Your task to perform on an android device: turn off location Image 0: 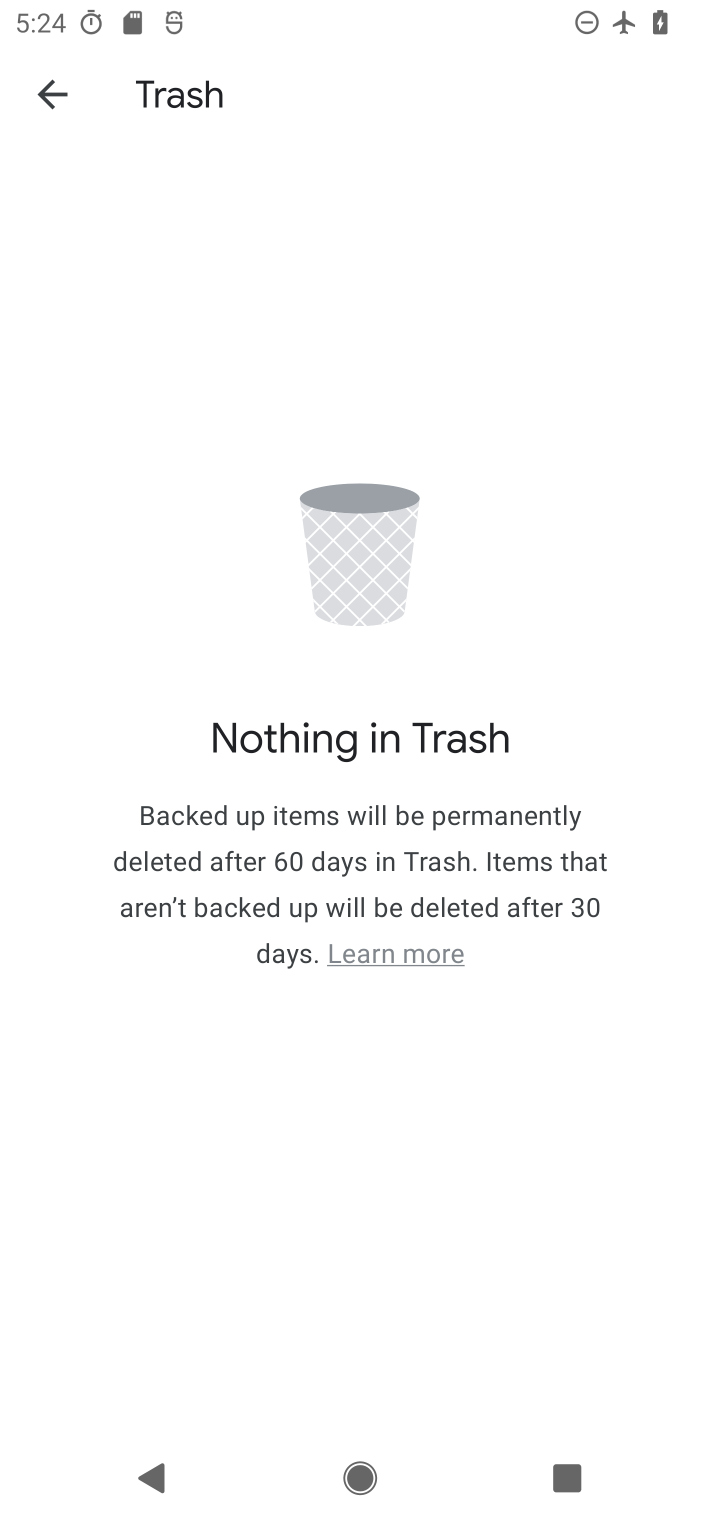
Step 0: press home button
Your task to perform on an android device: turn off location Image 1: 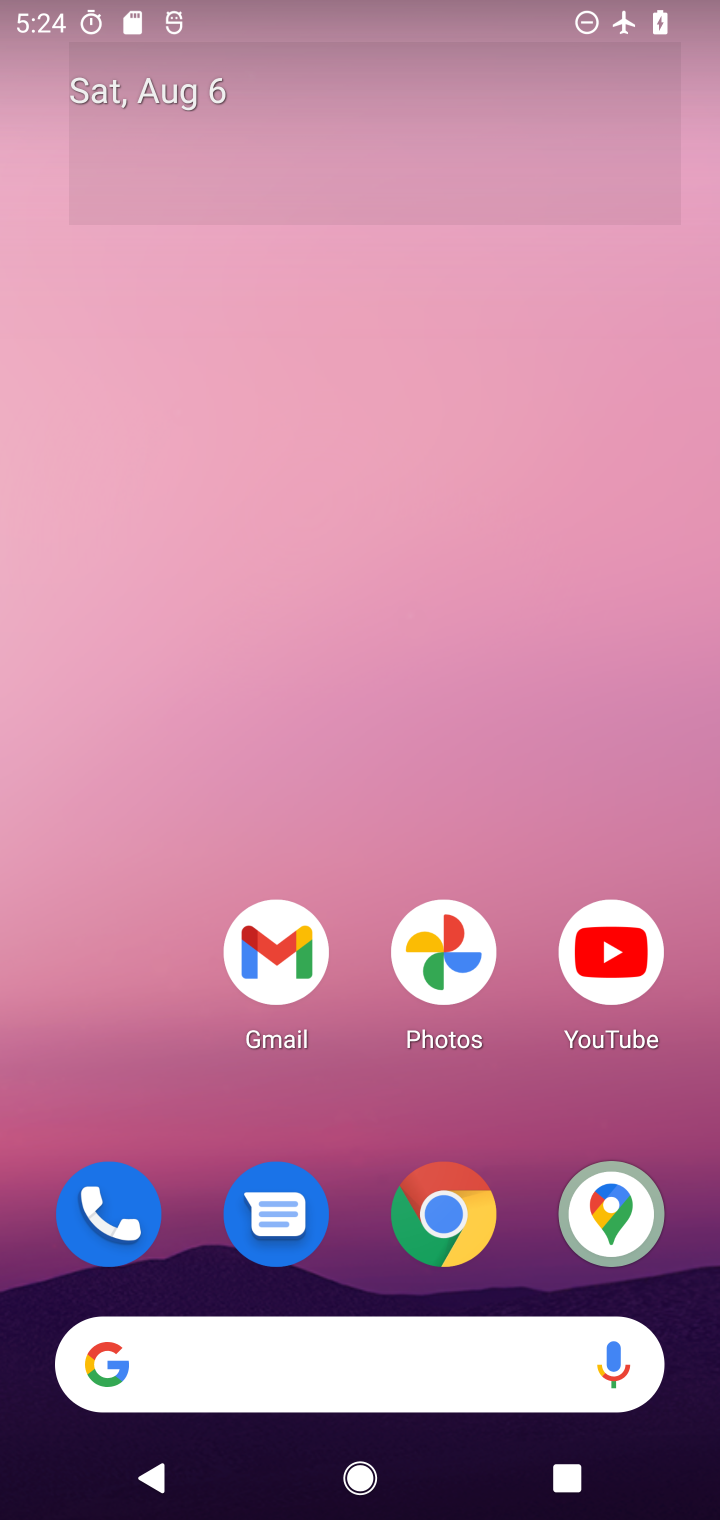
Step 1: drag from (352, 1052) to (400, 141)
Your task to perform on an android device: turn off location Image 2: 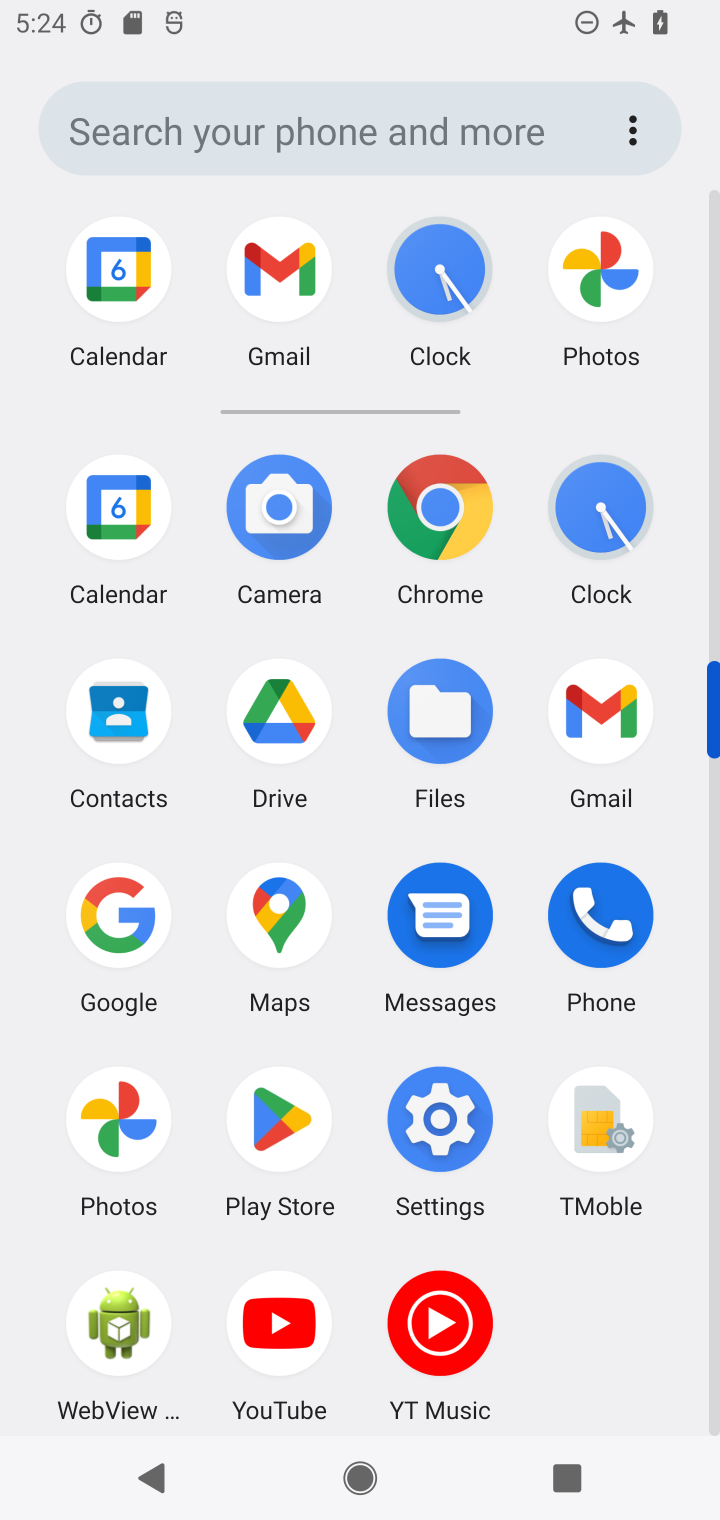
Step 2: click (435, 1121)
Your task to perform on an android device: turn off location Image 3: 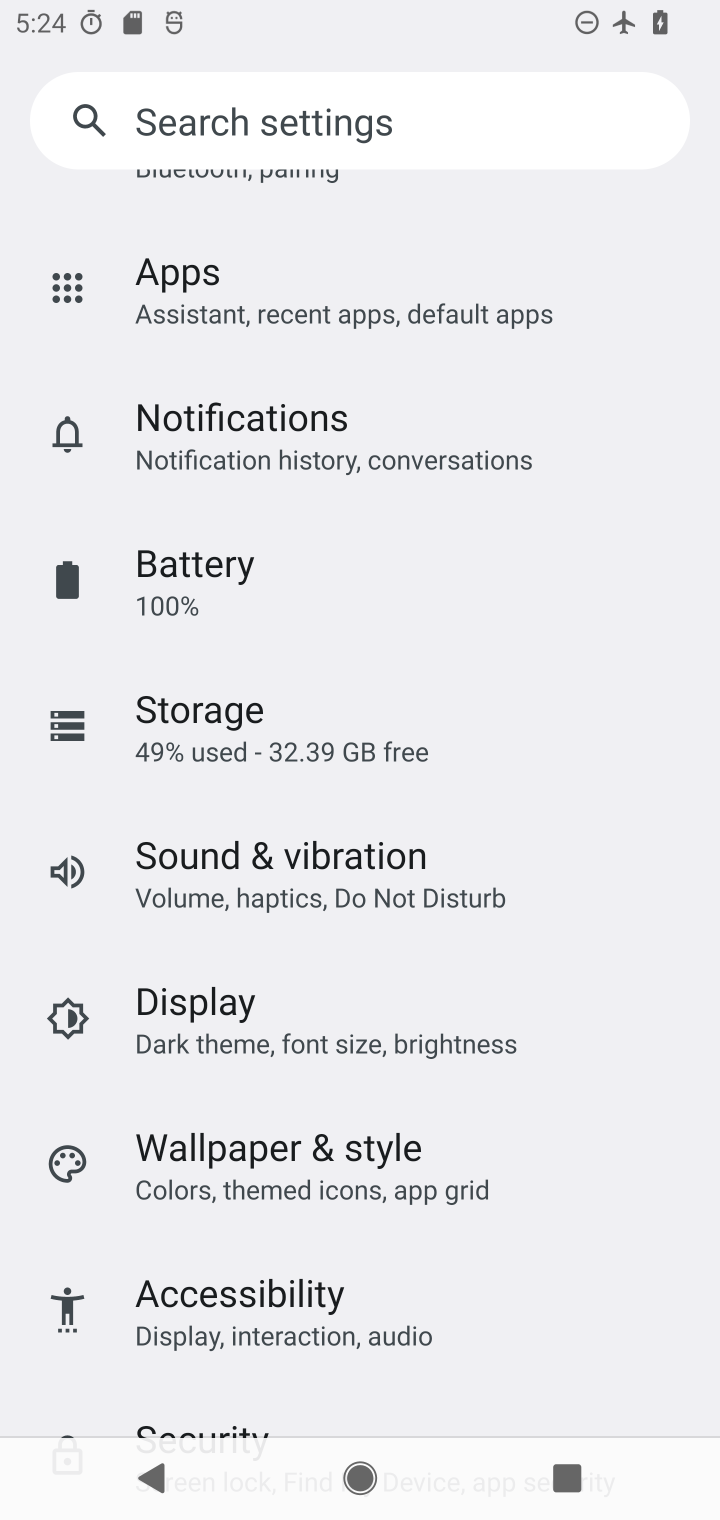
Step 3: drag from (255, 1162) to (305, 310)
Your task to perform on an android device: turn off location Image 4: 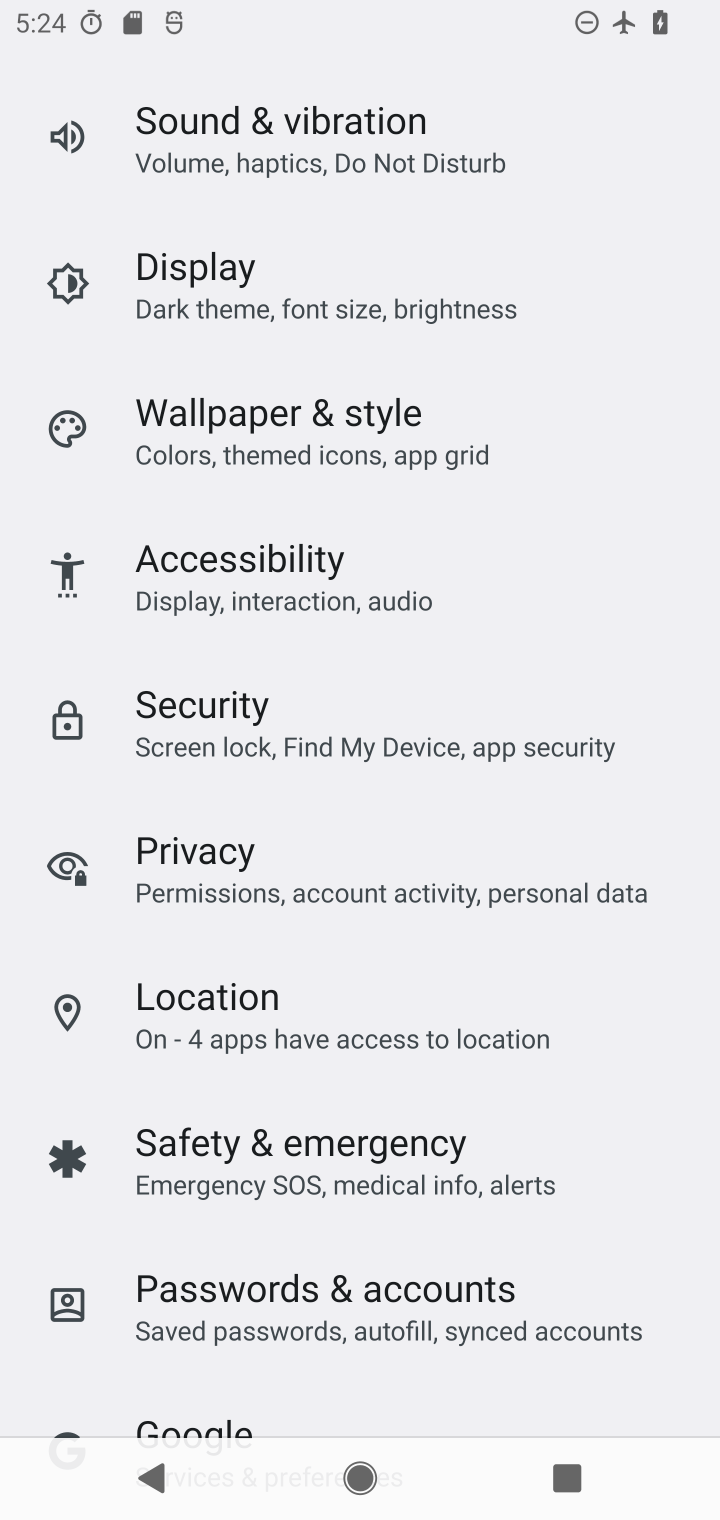
Step 4: click (217, 1206)
Your task to perform on an android device: turn off location Image 5: 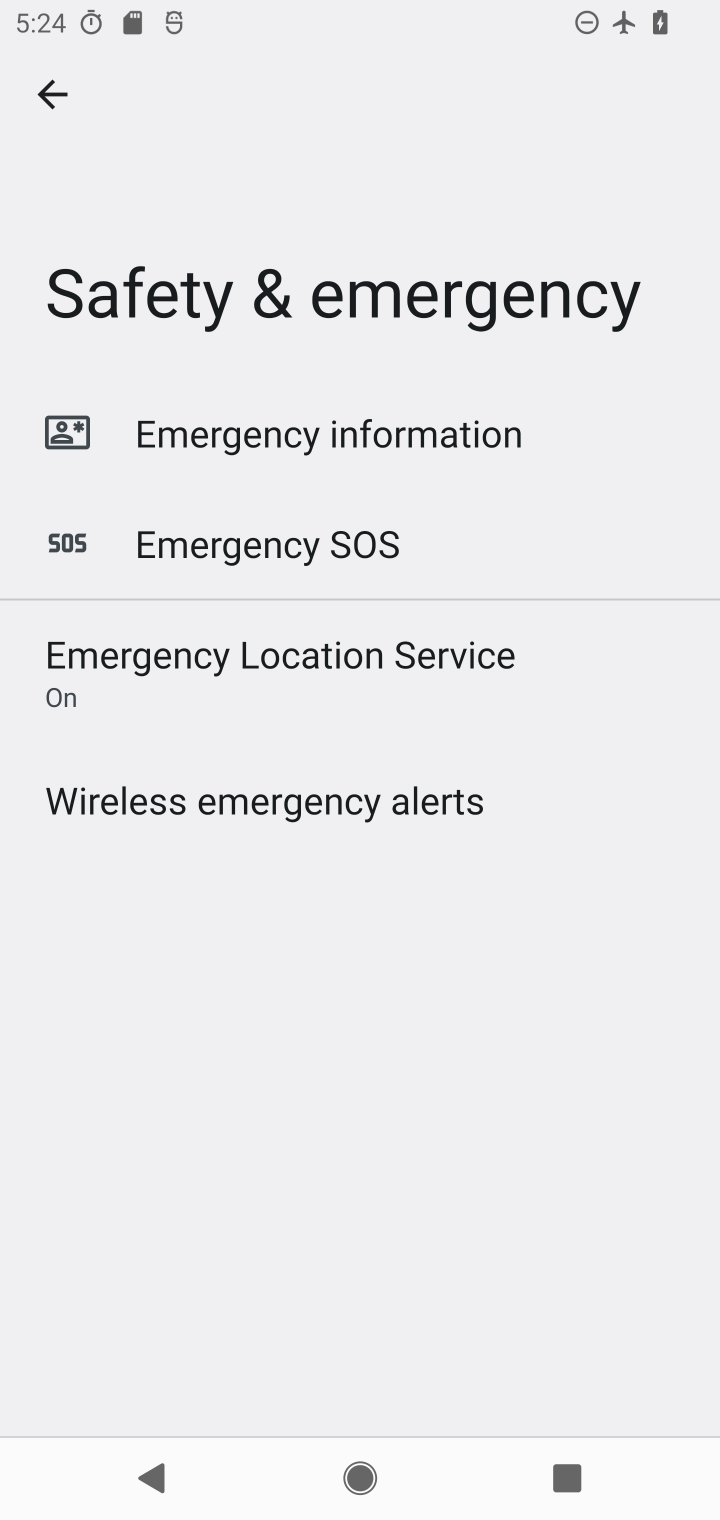
Step 5: click (49, 100)
Your task to perform on an android device: turn off location Image 6: 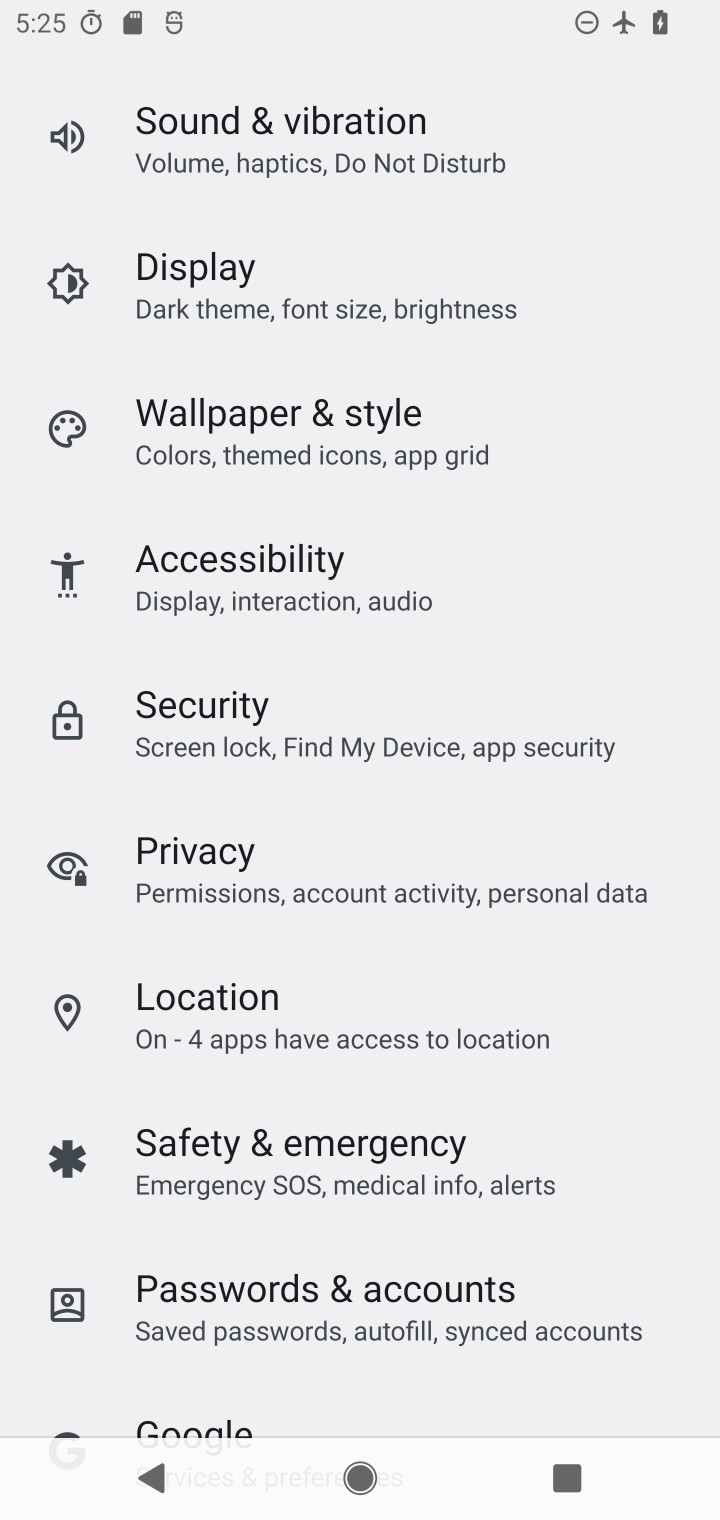
Step 6: drag from (282, 1249) to (302, 556)
Your task to perform on an android device: turn off location Image 7: 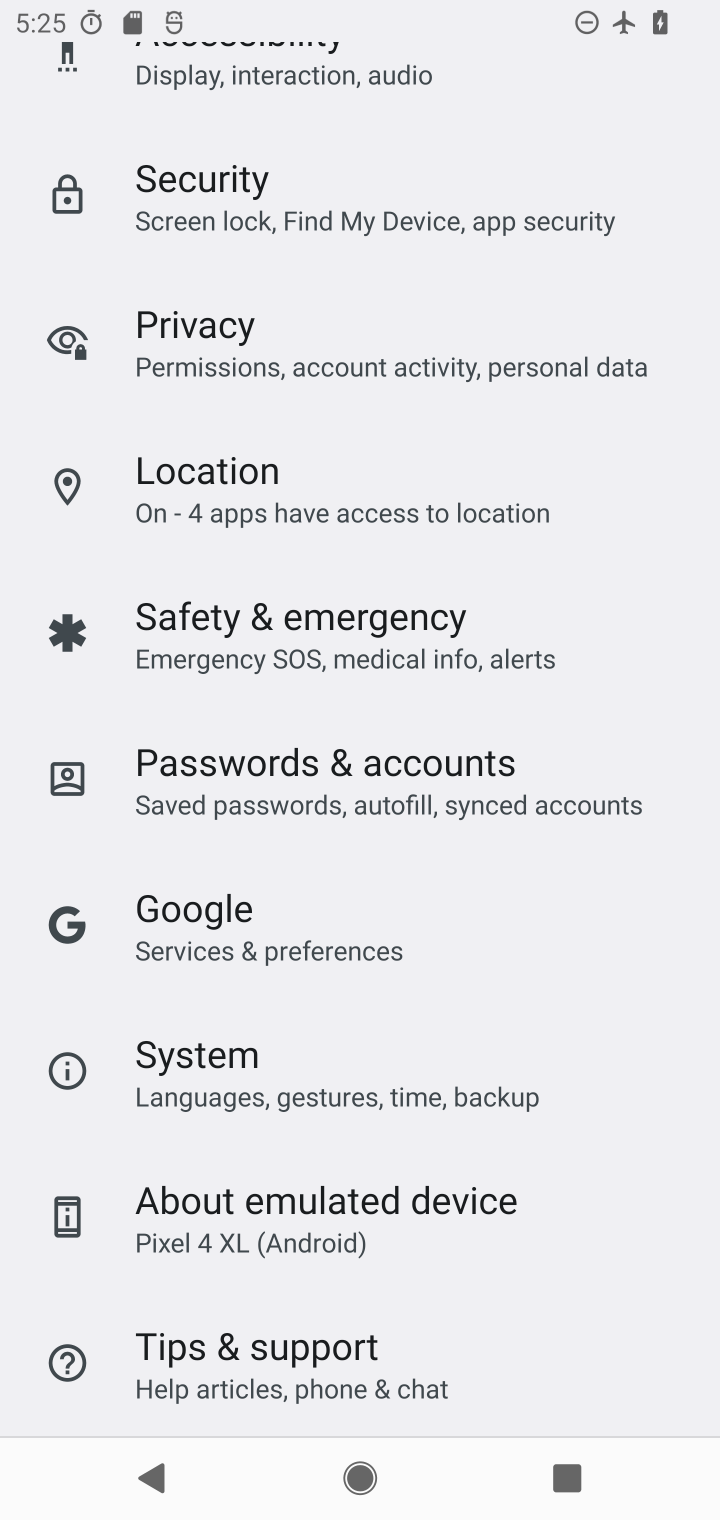
Step 7: click (293, 515)
Your task to perform on an android device: turn off location Image 8: 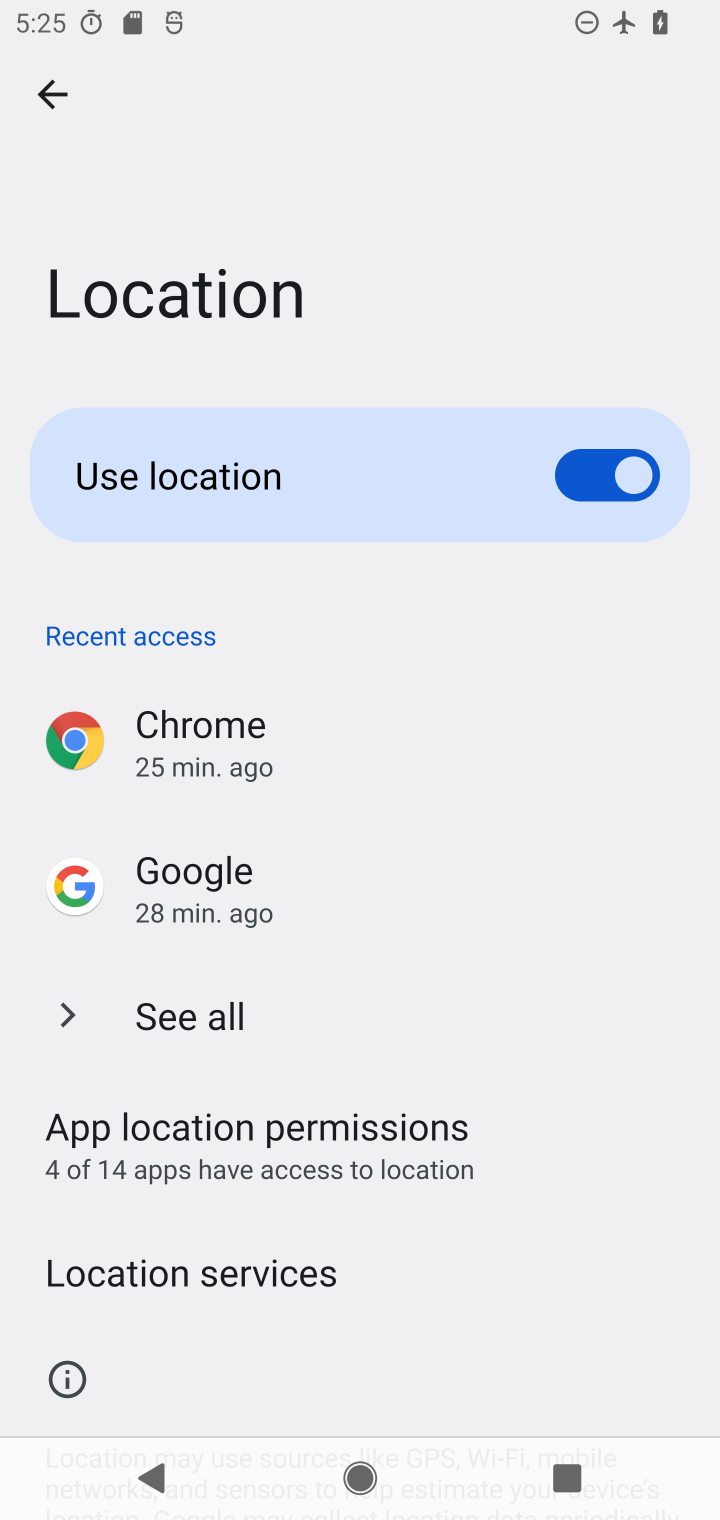
Step 8: click (577, 474)
Your task to perform on an android device: turn off location Image 9: 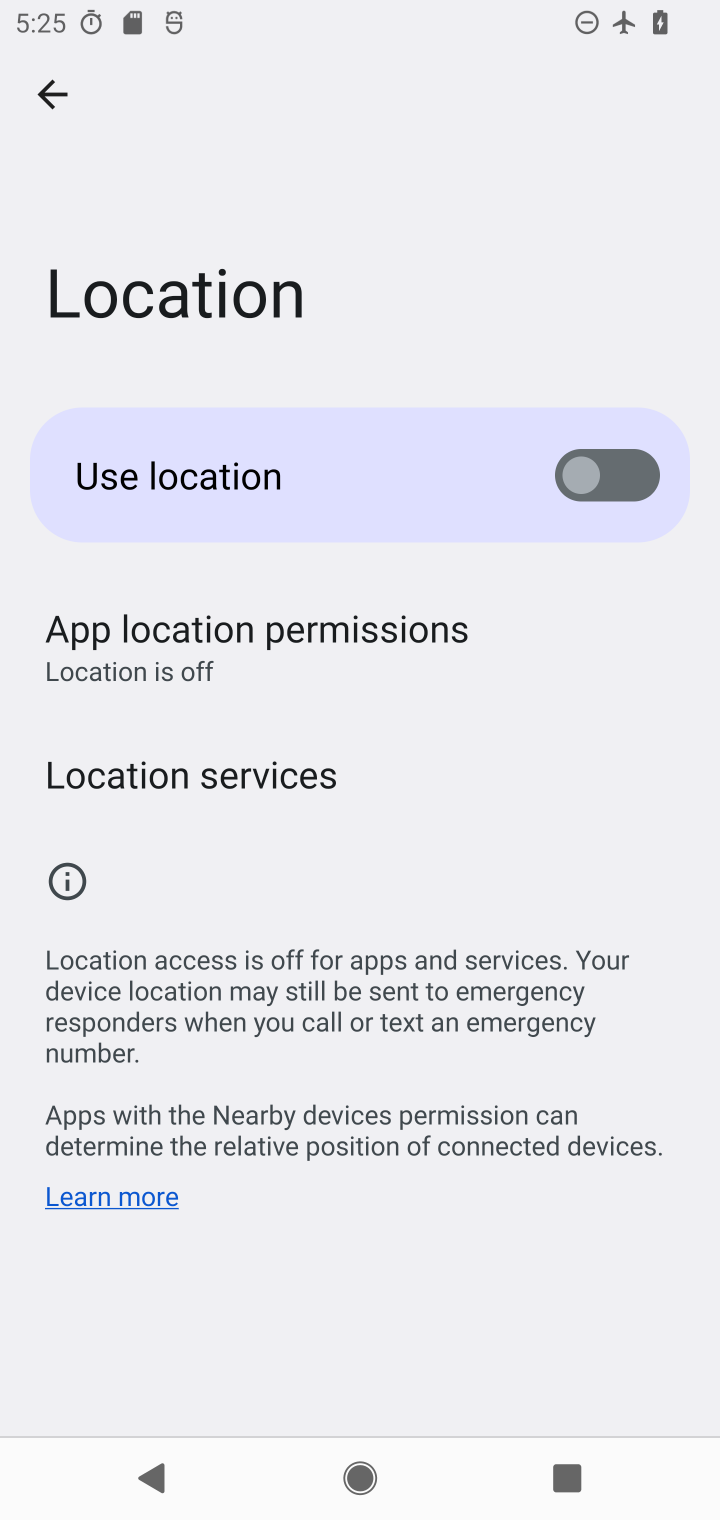
Step 9: task complete